Your task to perform on an android device: Open eBay Image 0: 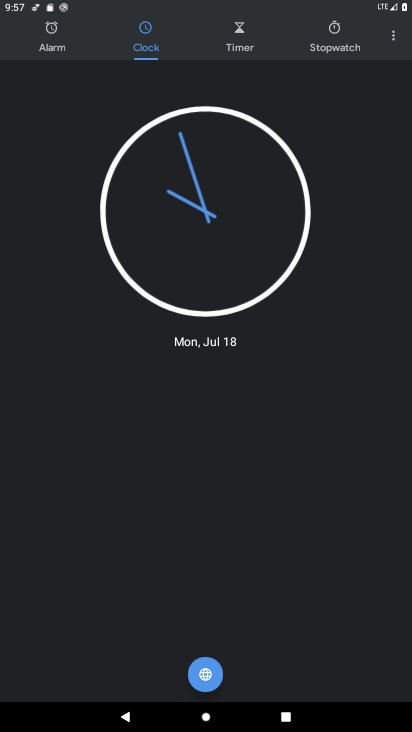
Step 0: press home button
Your task to perform on an android device: Open eBay Image 1: 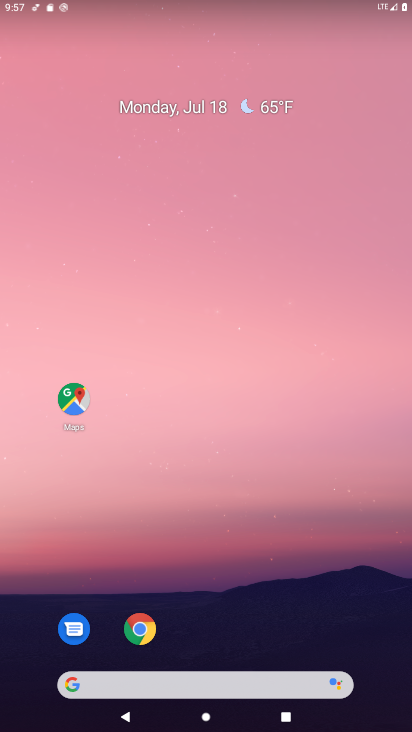
Step 1: click (133, 634)
Your task to perform on an android device: Open eBay Image 2: 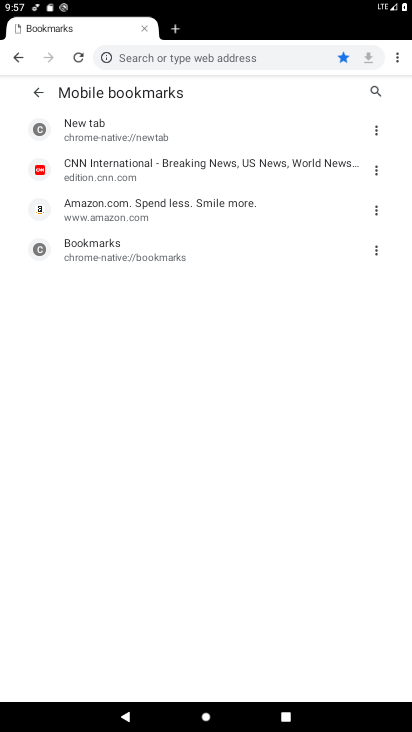
Step 2: click (400, 56)
Your task to perform on an android device: Open eBay Image 3: 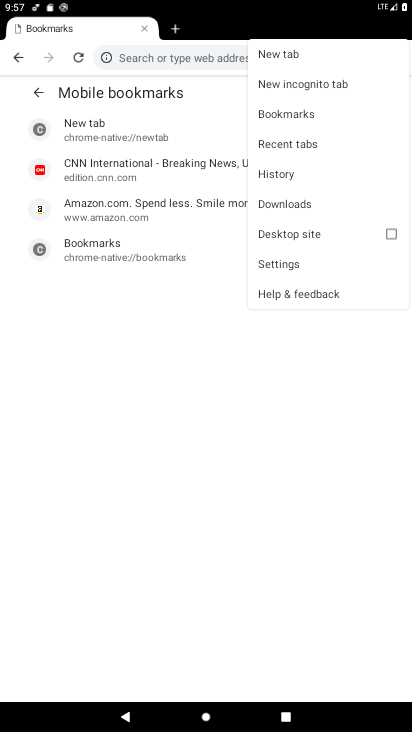
Step 3: click (308, 53)
Your task to perform on an android device: Open eBay Image 4: 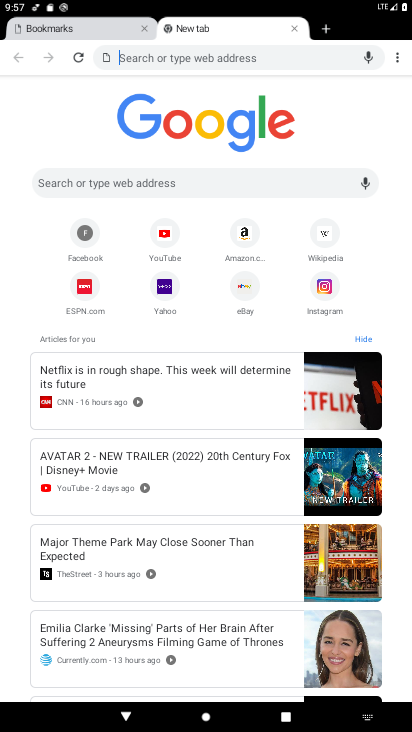
Step 4: click (243, 280)
Your task to perform on an android device: Open eBay Image 5: 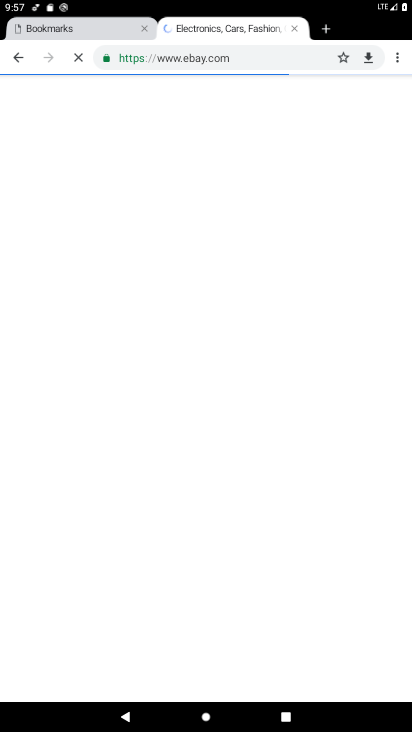
Step 5: click (243, 280)
Your task to perform on an android device: Open eBay Image 6: 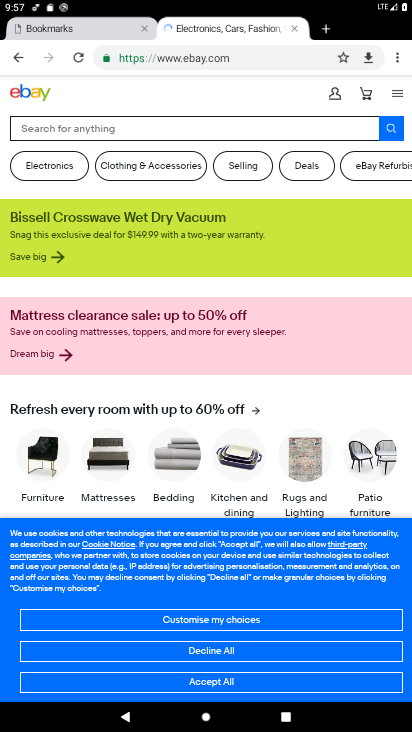
Step 6: task complete